Your task to perform on an android device: Search for a new eyeshadow on Sephora Image 0: 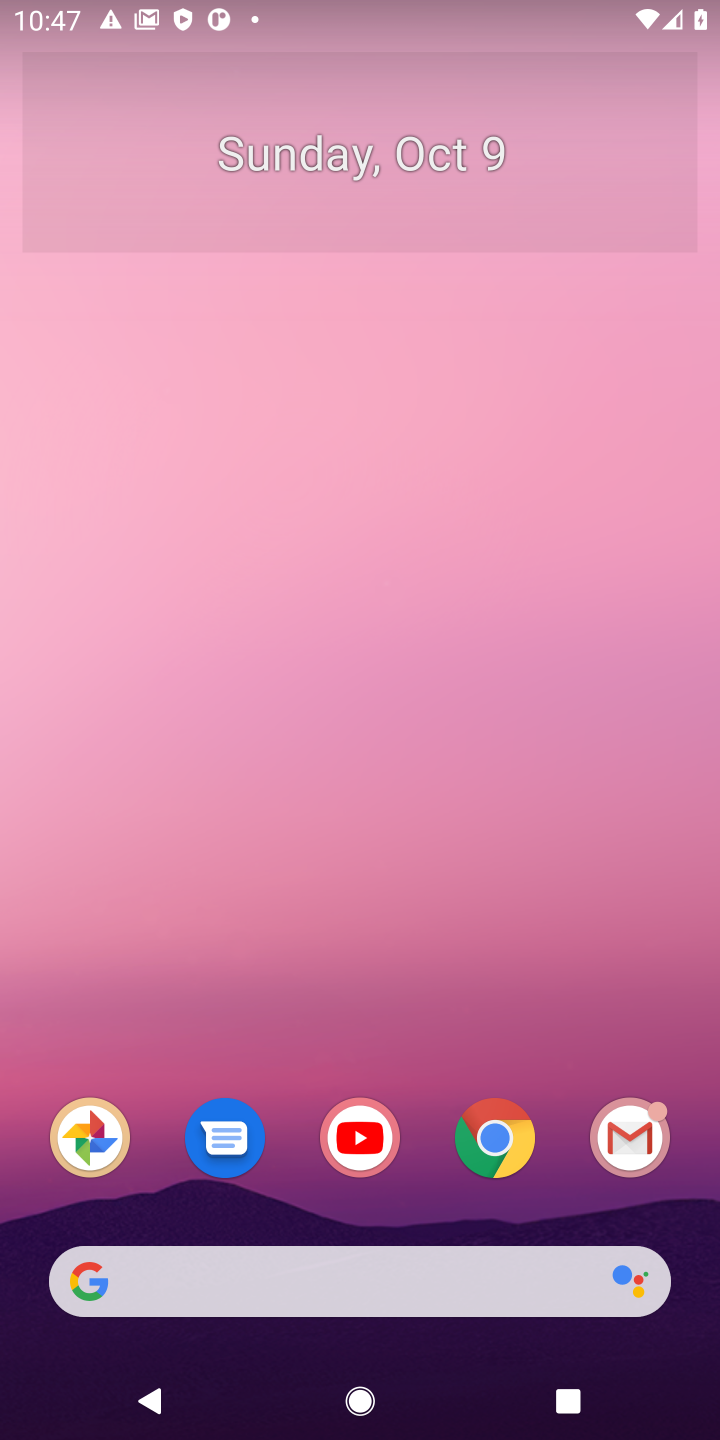
Step 0: click (502, 1140)
Your task to perform on an android device: Search for a new eyeshadow on Sephora Image 1: 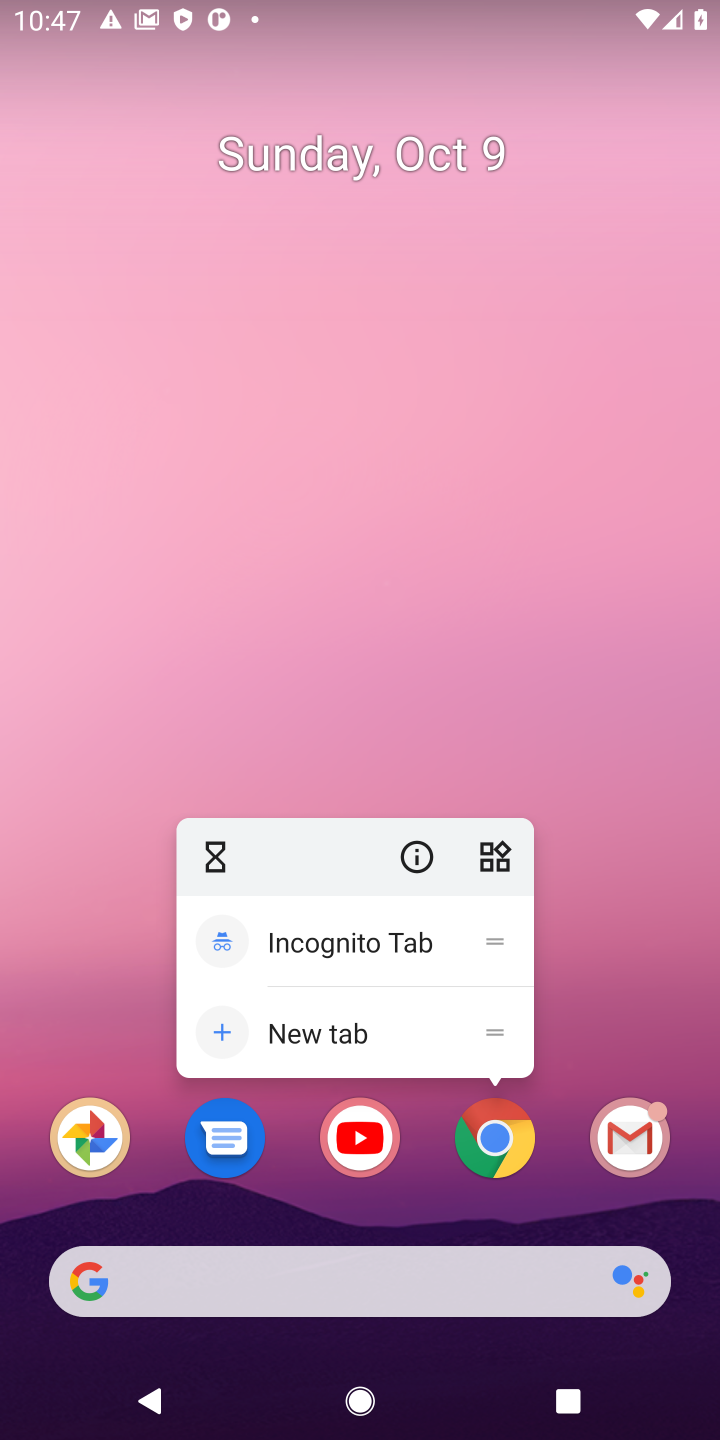
Step 1: click (521, 1125)
Your task to perform on an android device: Search for a new eyeshadow on Sephora Image 2: 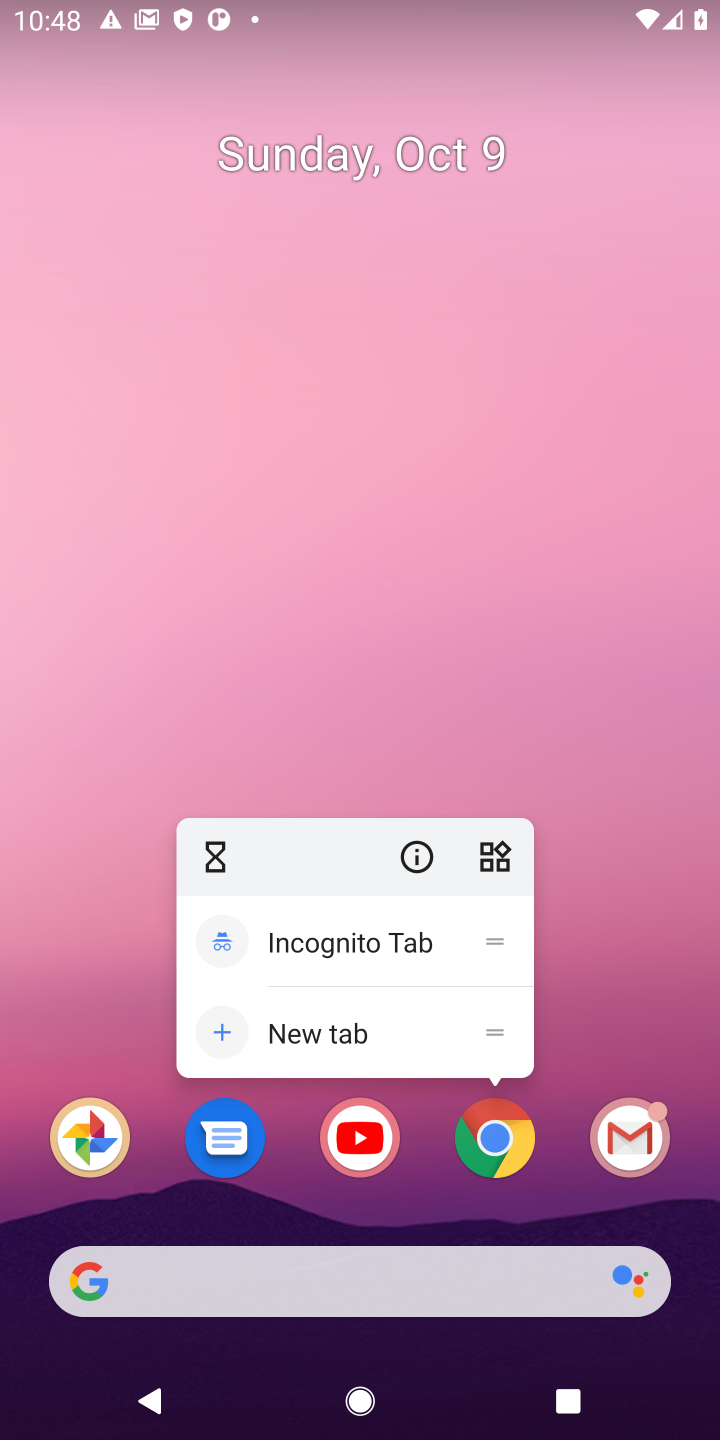
Step 2: click (521, 1125)
Your task to perform on an android device: Search for a new eyeshadow on Sephora Image 3: 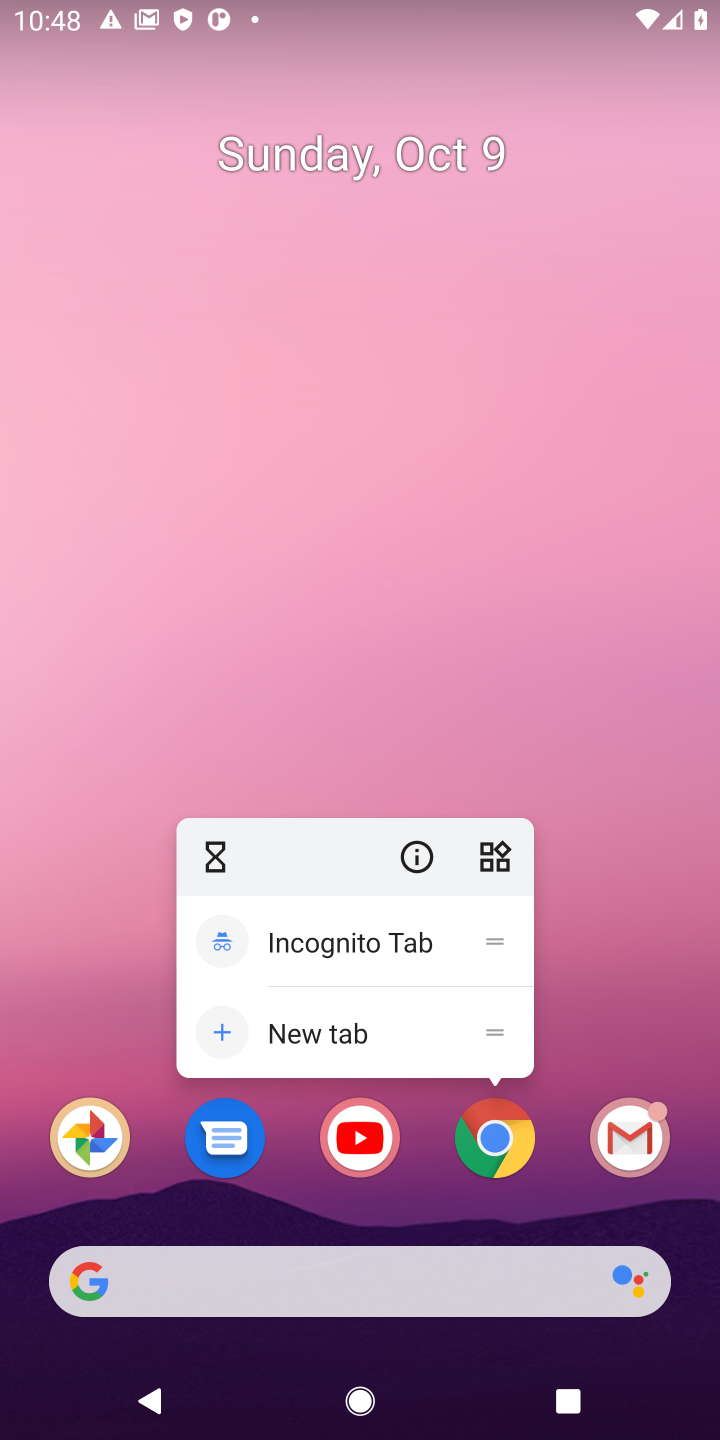
Step 3: click (521, 1125)
Your task to perform on an android device: Search for a new eyeshadow on Sephora Image 4: 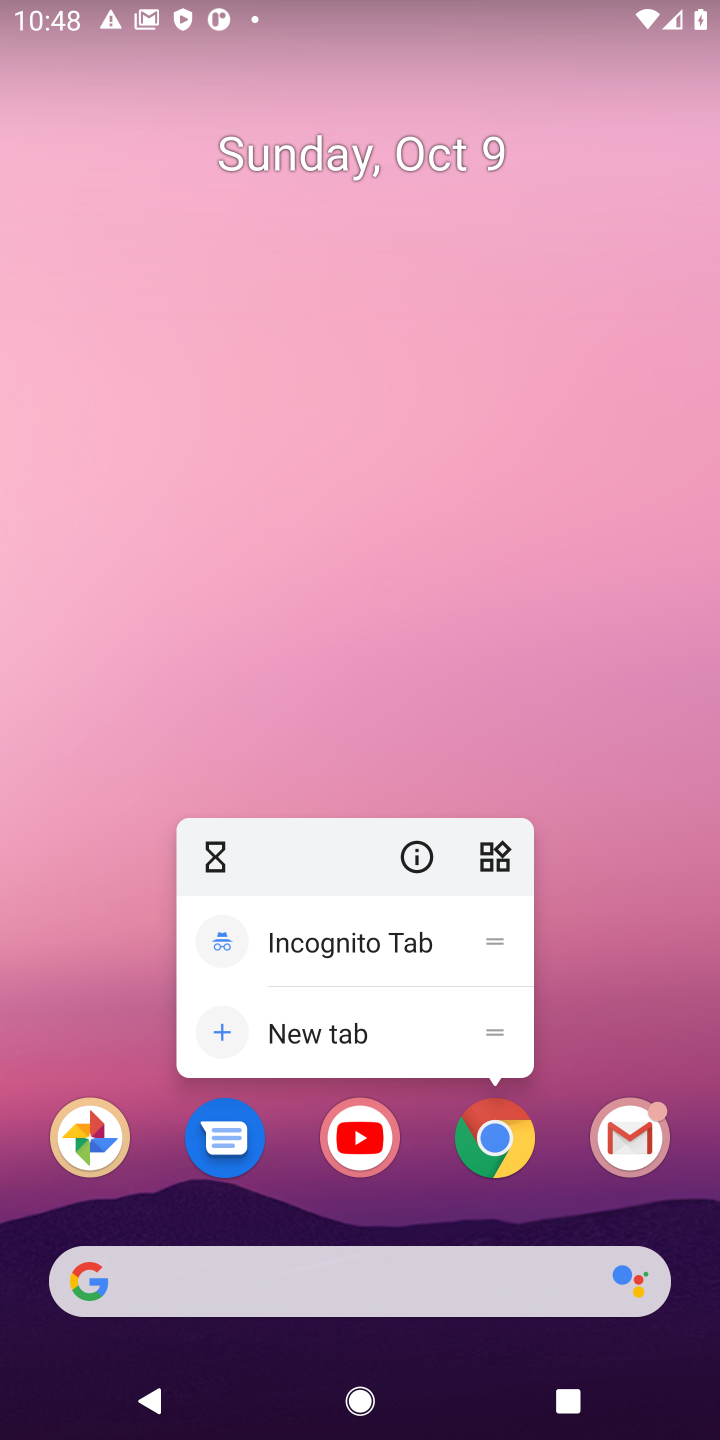
Step 4: click (485, 1138)
Your task to perform on an android device: Search for a new eyeshadow on Sephora Image 5: 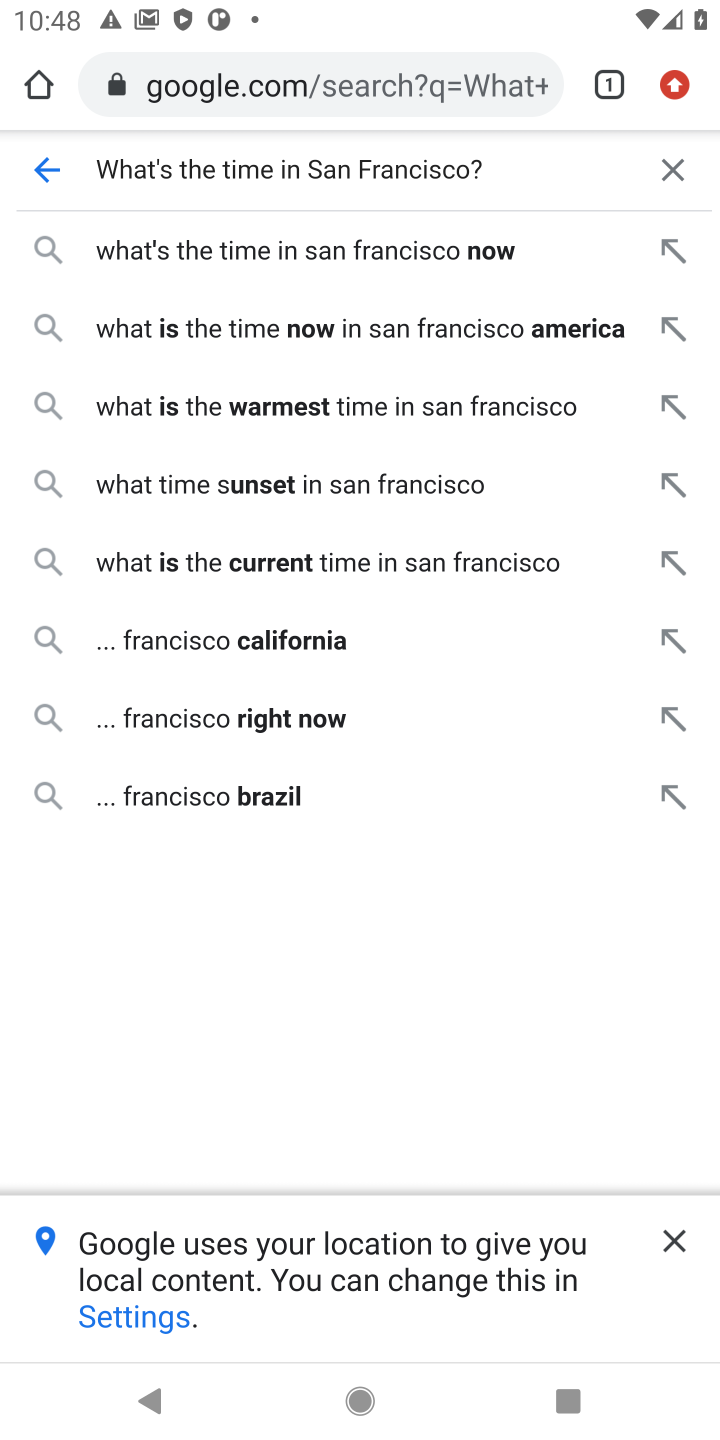
Step 5: click (669, 173)
Your task to perform on an android device: Search for a new eyeshadow on Sephora Image 6: 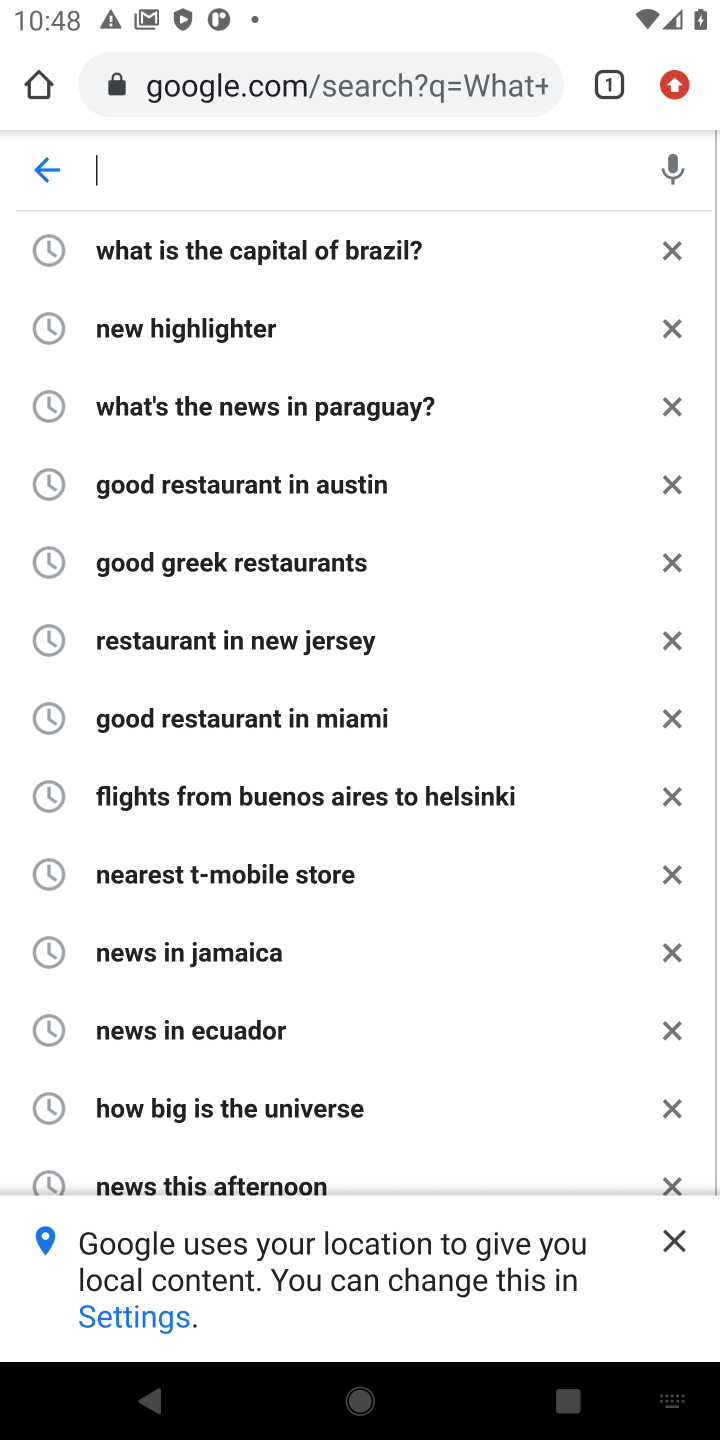
Step 6: type "new eyeshadow on Sephora"
Your task to perform on an android device: Search for a new eyeshadow on Sephora Image 7: 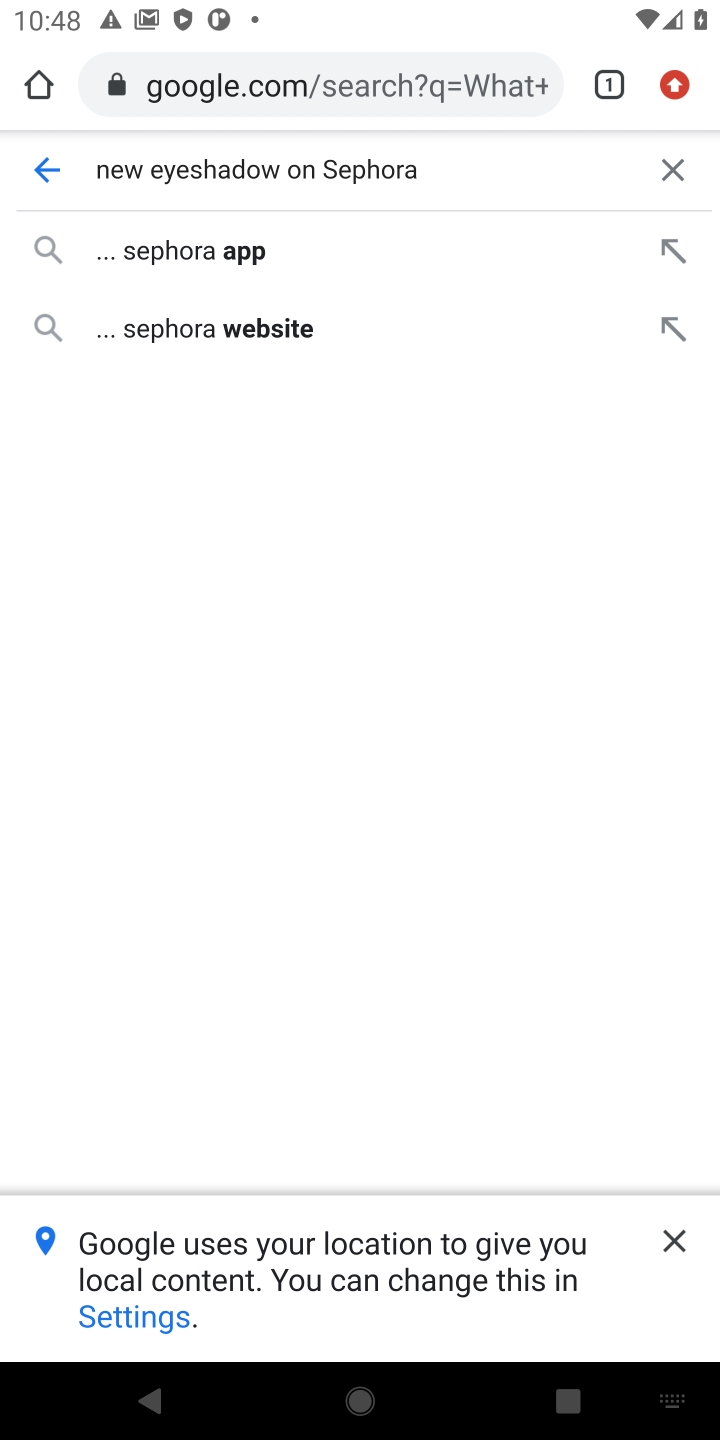
Step 7: press enter
Your task to perform on an android device: Search for a new eyeshadow on Sephora Image 8: 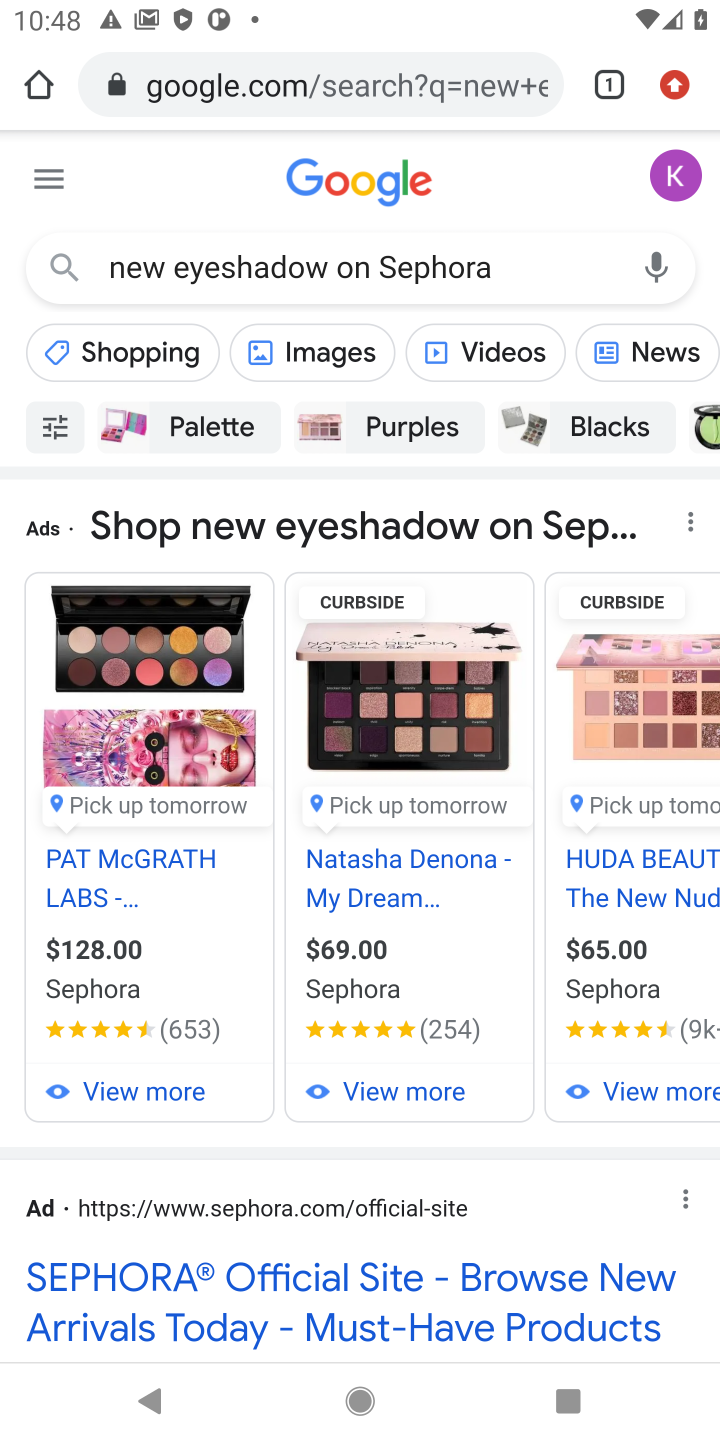
Step 8: task complete